Your task to perform on an android device: check out phone information Image 0: 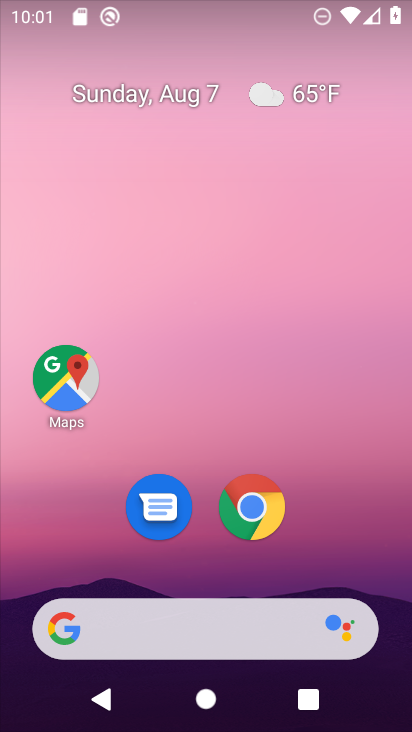
Step 0: drag from (337, 386) to (293, 6)
Your task to perform on an android device: check out phone information Image 1: 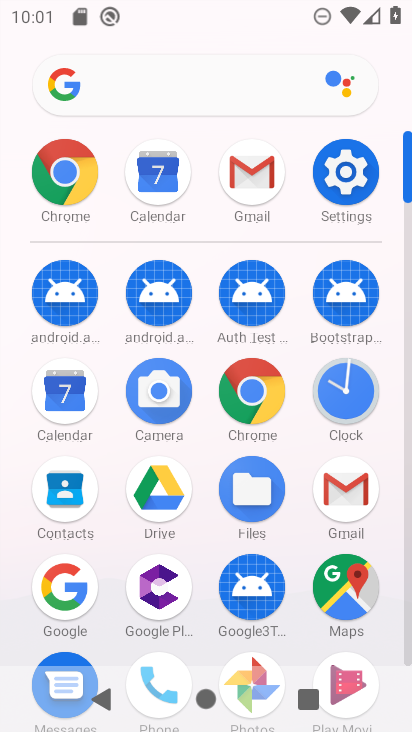
Step 1: drag from (289, 530) to (317, 252)
Your task to perform on an android device: check out phone information Image 2: 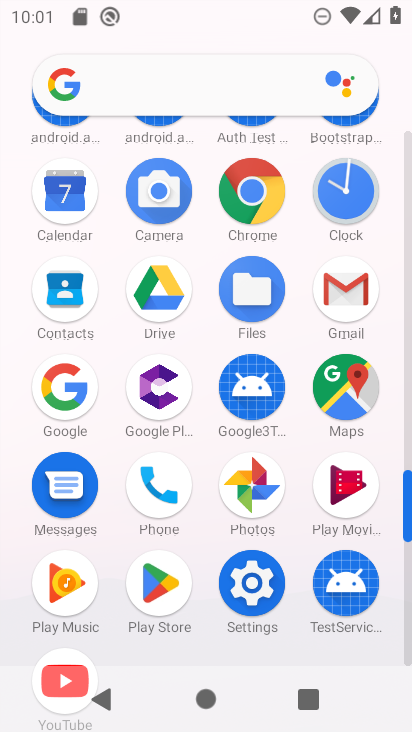
Step 2: click (165, 487)
Your task to perform on an android device: check out phone information Image 3: 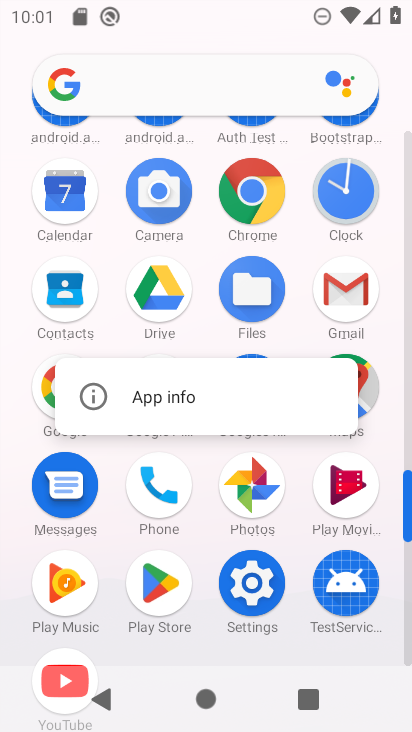
Step 3: click (193, 413)
Your task to perform on an android device: check out phone information Image 4: 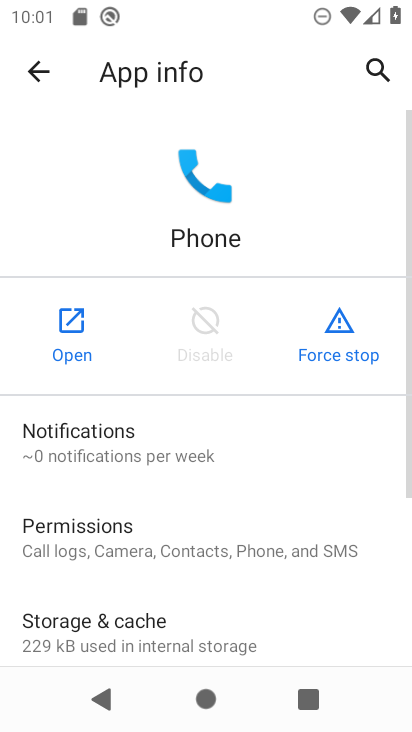
Step 4: task complete